Your task to perform on an android device: turn off notifications settings in the gmail app Image 0: 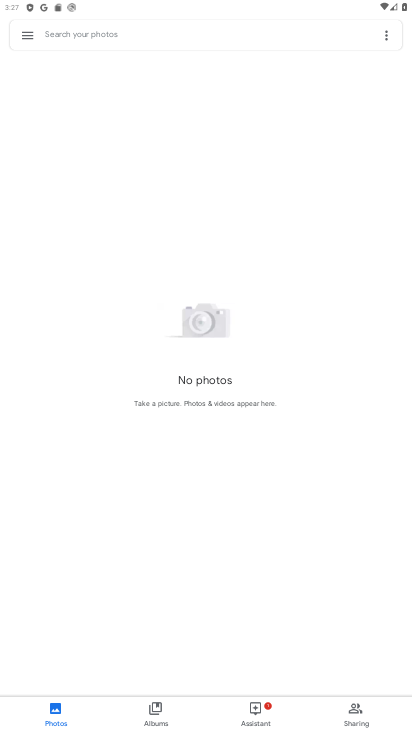
Step 0: press home button
Your task to perform on an android device: turn off notifications settings in the gmail app Image 1: 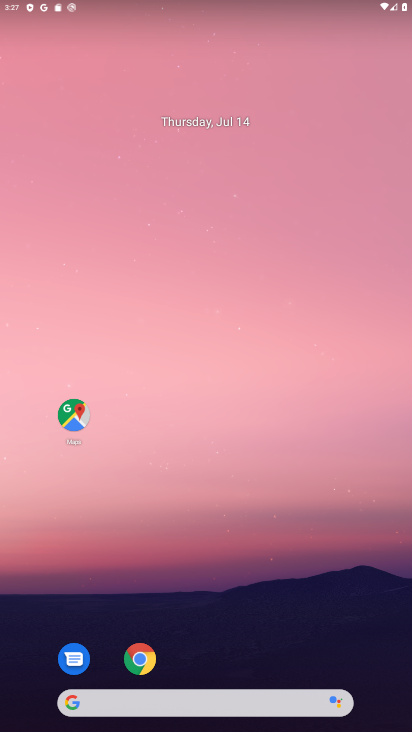
Step 1: drag from (306, 636) to (324, 82)
Your task to perform on an android device: turn off notifications settings in the gmail app Image 2: 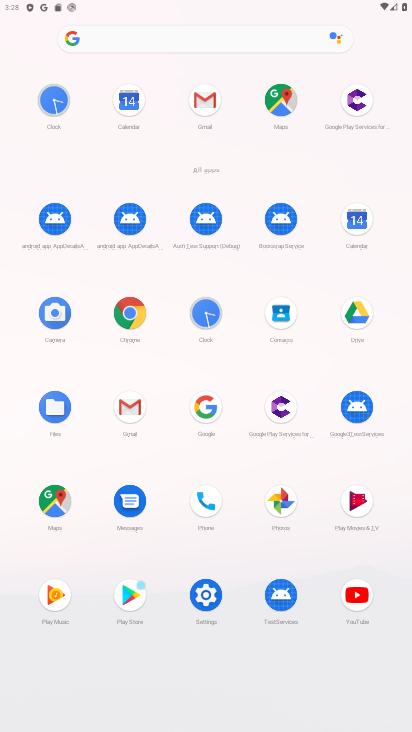
Step 2: click (131, 409)
Your task to perform on an android device: turn off notifications settings in the gmail app Image 3: 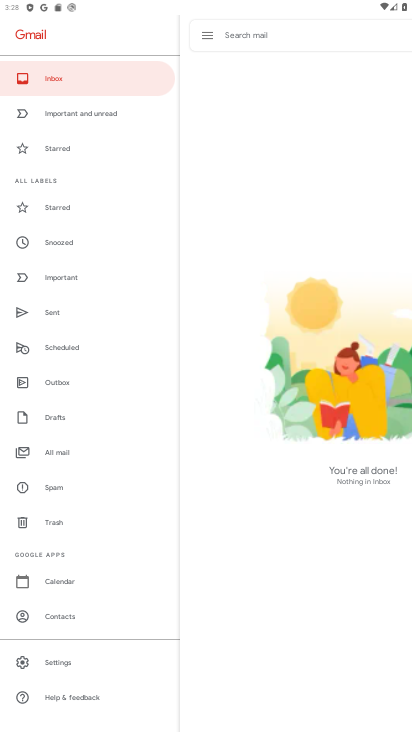
Step 3: click (64, 659)
Your task to perform on an android device: turn off notifications settings in the gmail app Image 4: 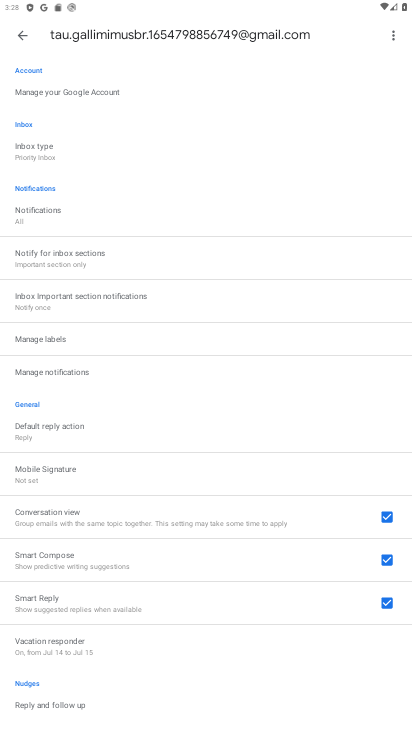
Step 4: click (83, 372)
Your task to perform on an android device: turn off notifications settings in the gmail app Image 5: 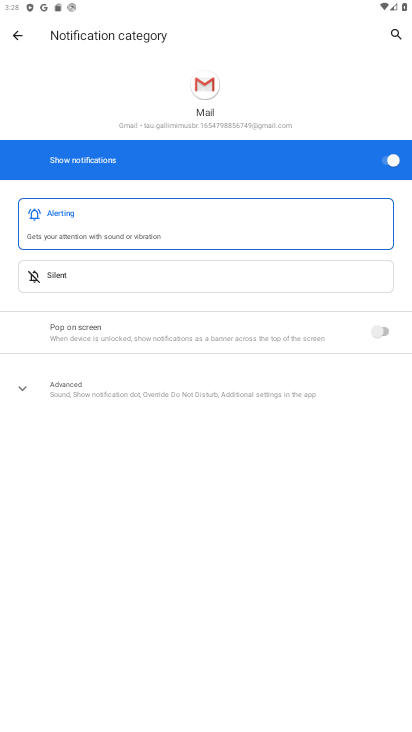
Step 5: click (386, 164)
Your task to perform on an android device: turn off notifications settings in the gmail app Image 6: 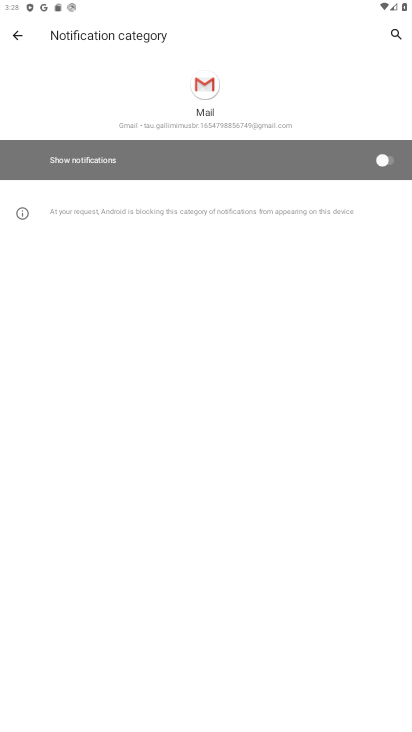
Step 6: task complete